Your task to perform on an android device: toggle show notifications on the lock screen Image 0: 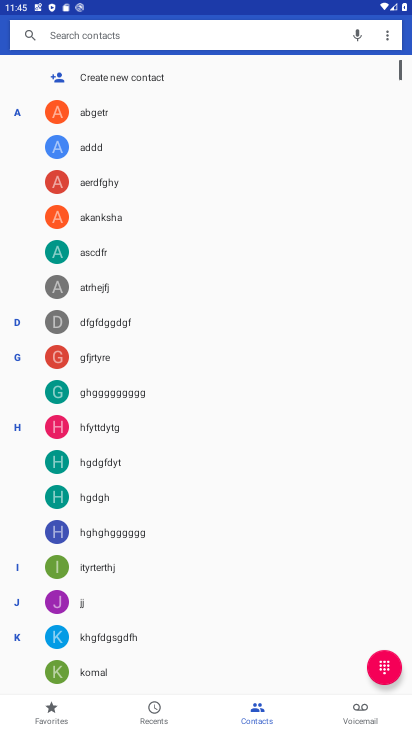
Step 0: press home button
Your task to perform on an android device: toggle show notifications on the lock screen Image 1: 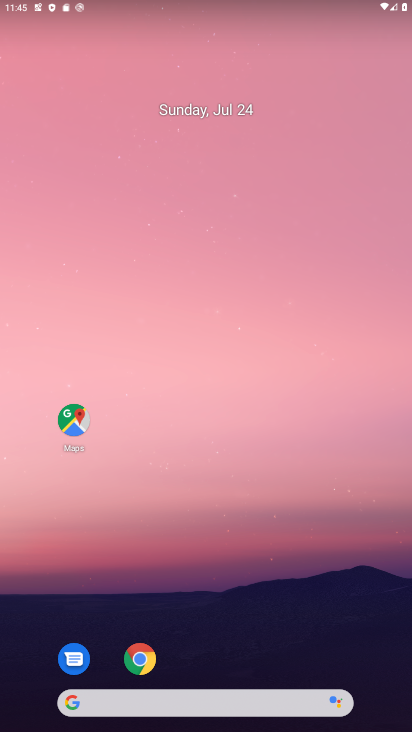
Step 1: drag from (12, 698) to (288, 69)
Your task to perform on an android device: toggle show notifications on the lock screen Image 2: 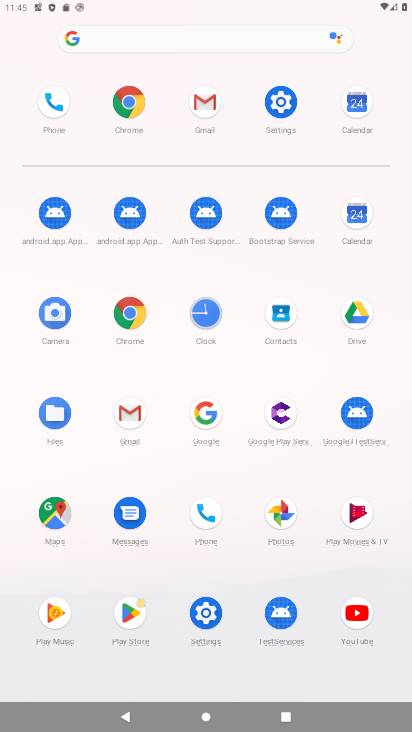
Step 2: click (199, 607)
Your task to perform on an android device: toggle show notifications on the lock screen Image 3: 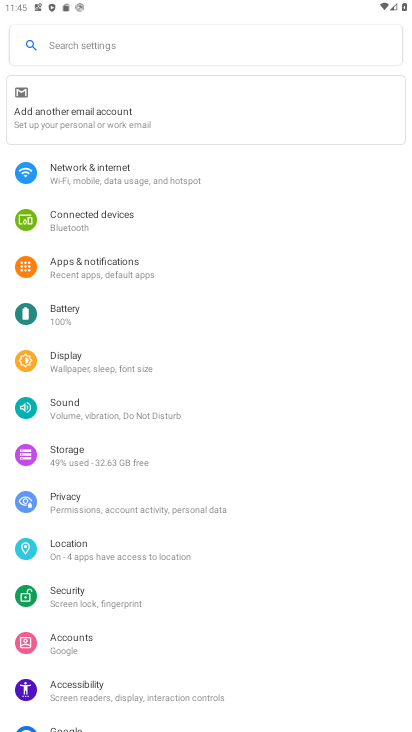
Step 3: click (120, 253)
Your task to perform on an android device: toggle show notifications on the lock screen Image 4: 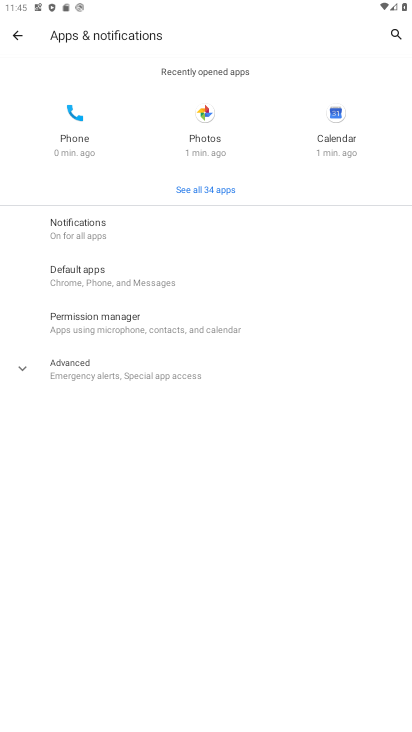
Step 4: click (104, 225)
Your task to perform on an android device: toggle show notifications on the lock screen Image 5: 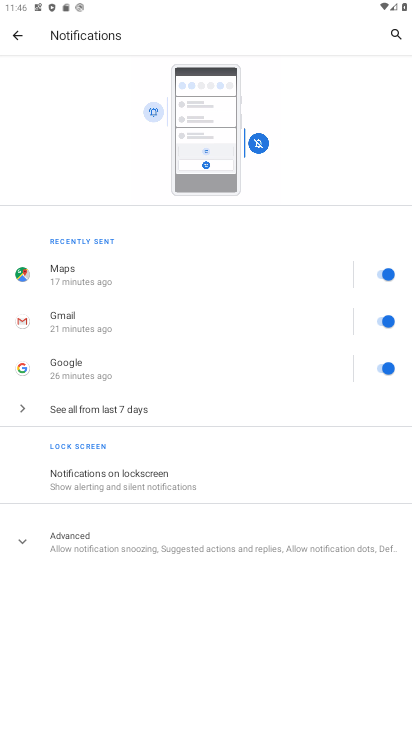
Step 5: click (135, 473)
Your task to perform on an android device: toggle show notifications on the lock screen Image 6: 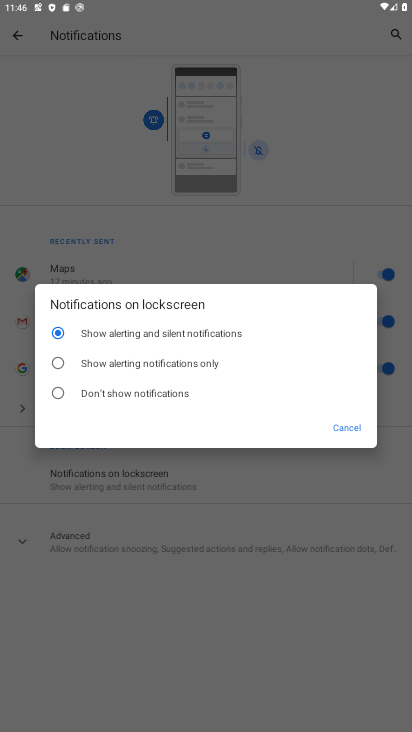
Step 6: task complete